Your task to perform on an android device: Open the phone app and click the voicemail tab. Image 0: 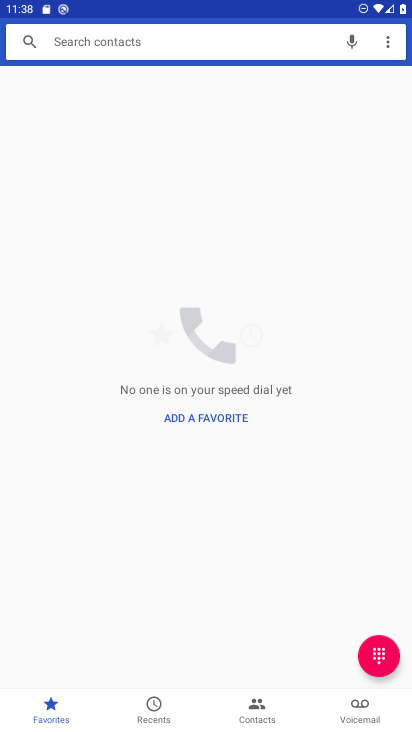
Step 0: press home button
Your task to perform on an android device: Open the phone app and click the voicemail tab. Image 1: 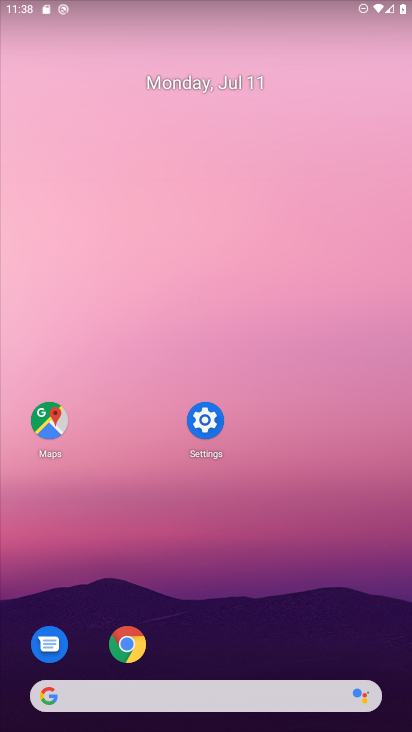
Step 1: drag from (388, 676) to (380, 90)
Your task to perform on an android device: Open the phone app and click the voicemail tab. Image 2: 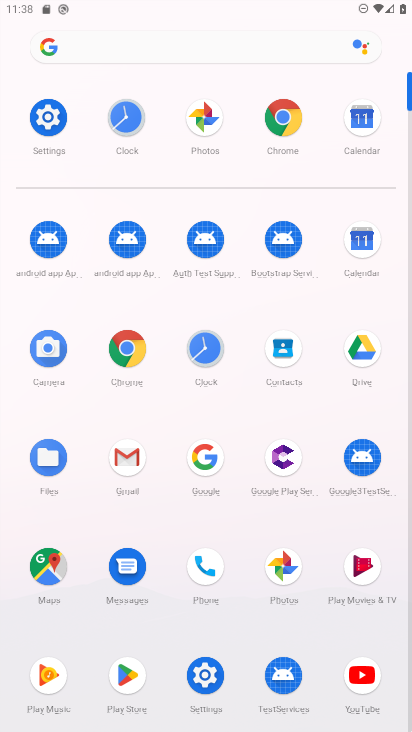
Step 2: click (208, 559)
Your task to perform on an android device: Open the phone app and click the voicemail tab. Image 3: 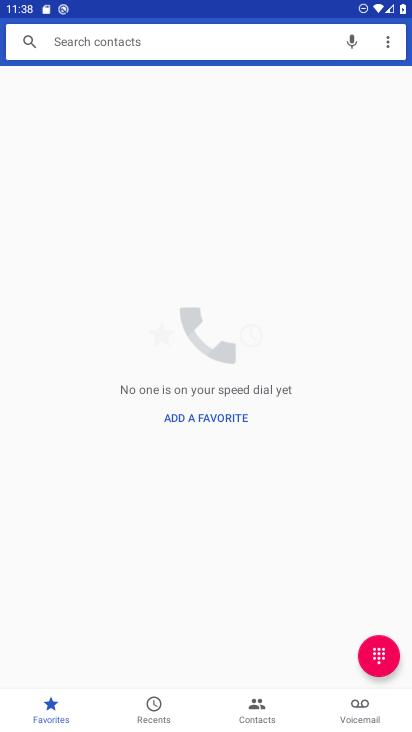
Step 3: click (347, 705)
Your task to perform on an android device: Open the phone app and click the voicemail tab. Image 4: 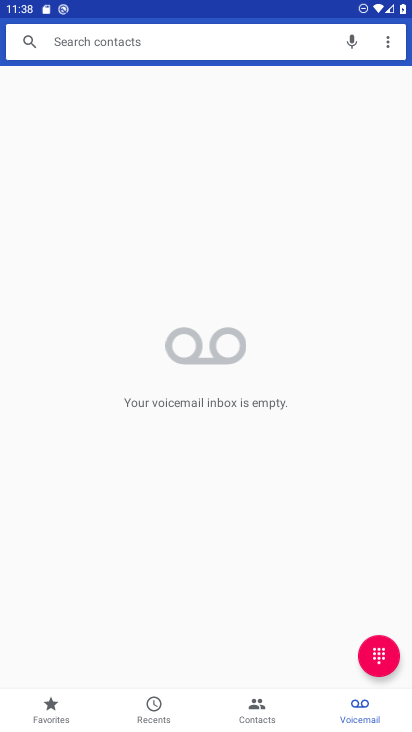
Step 4: task complete